Your task to perform on an android device: Open settings Image 0: 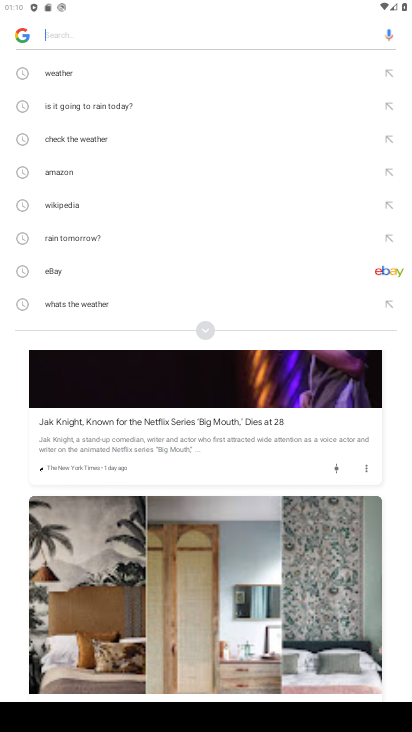
Step 0: press home button
Your task to perform on an android device: Open settings Image 1: 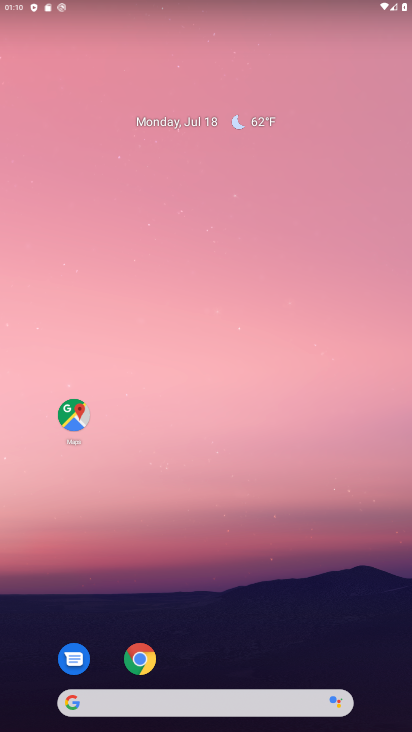
Step 1: drag from (215, 630) to (172, 95)
Your task to perform on an android device: Open settings Image 2: 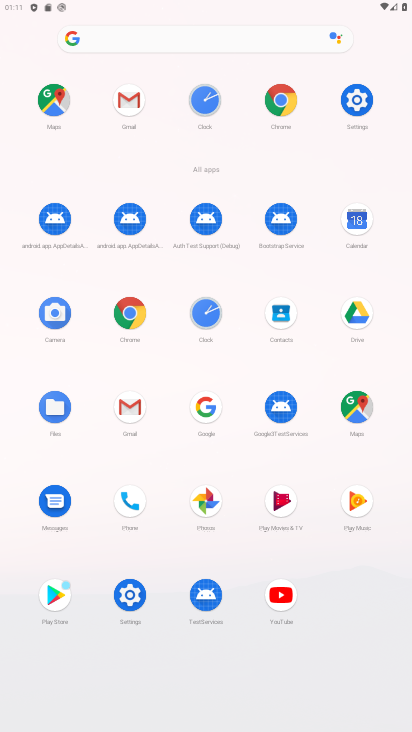
Step 2: click (357, 96)
Your task to perform on an android device: Open settings Image 3: 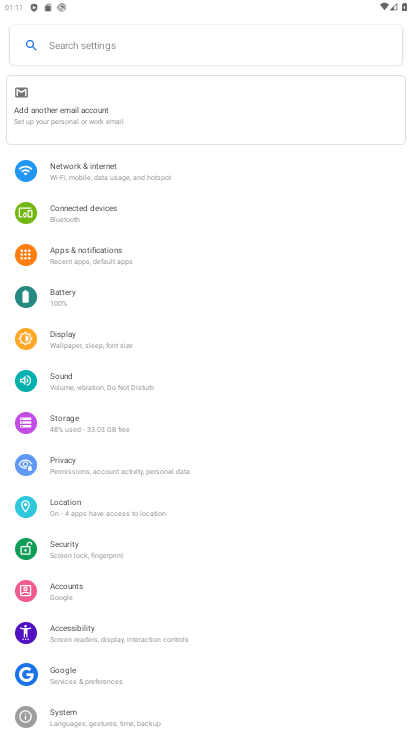
Step 3: task complete